Your task to perform on an android device: What's on my calendar today? Image 0: 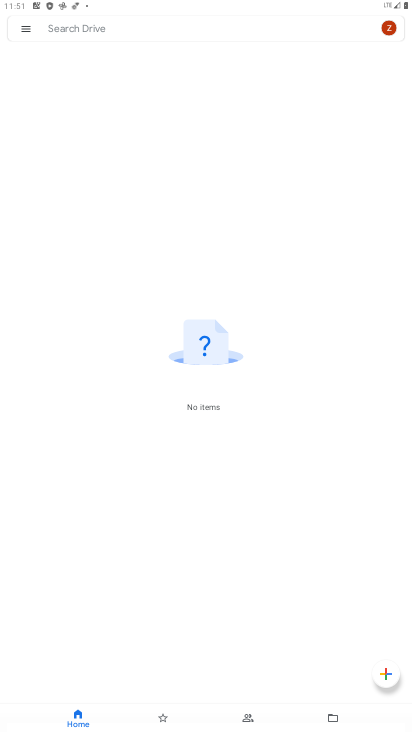
Step 0: press home button
Your task to perform on an android device: What's on my calendar today? Image 1: 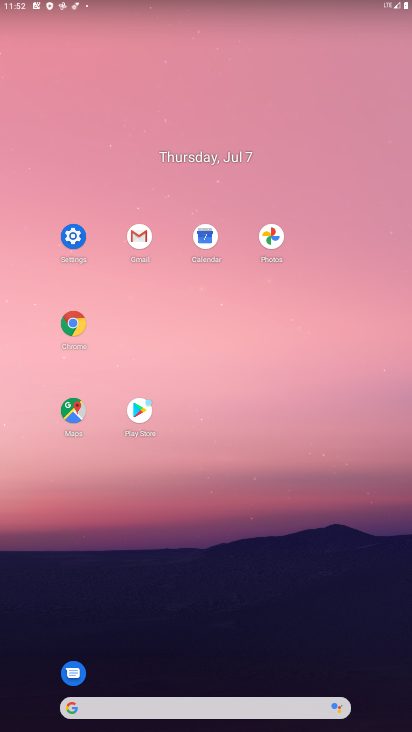
Step 1: click (214, 237)
Your task to perform on an android device: What's on my calendar today? Image 2: 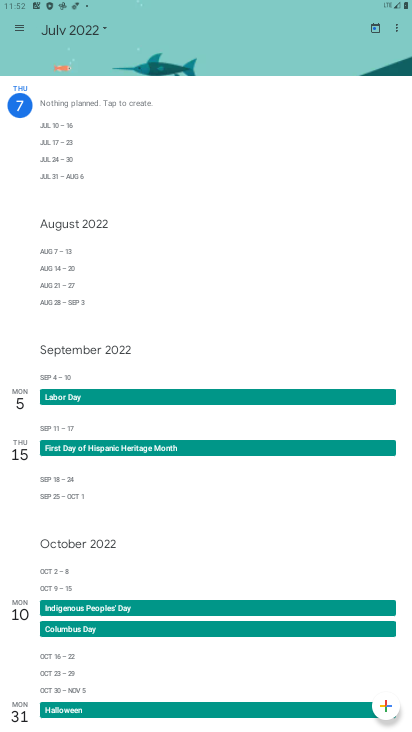
Step 2: click (112, 53)
Your task to perform on an android device: What's on my calendar today? Image 3: 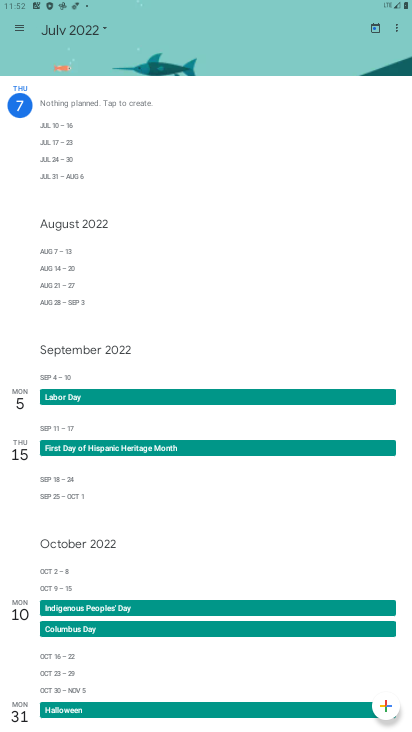
Step 3: drag from (264, 195) to (235, 552)
Your task to perform on an android device: What's on my calendar today? Image 4: 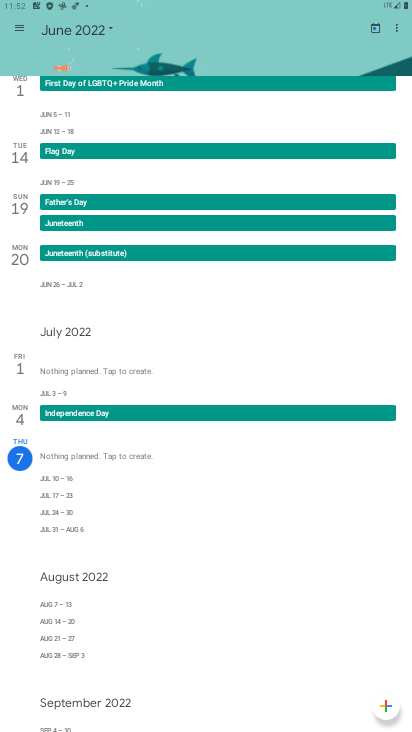
Step 4: click (19, 459)
Your task to perform on an android device: What's on my calendar today? Image 5: 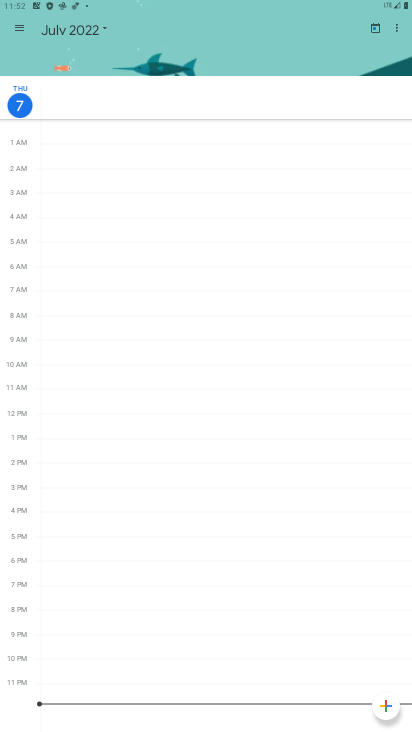
Step 5: task complete